Your task to perform on an android device: Check the weather Image 0: 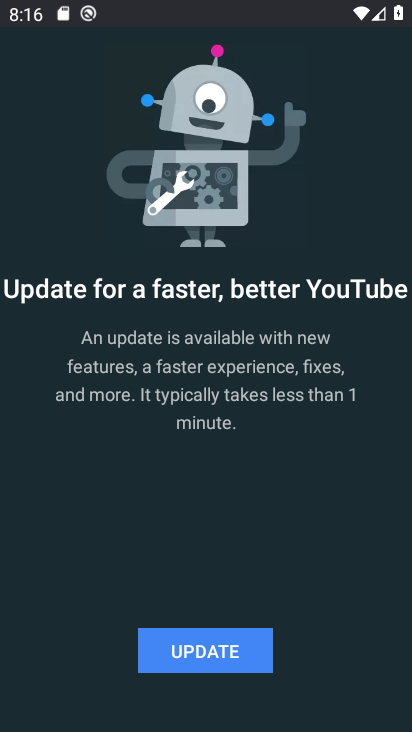
Step 0: press home button
Your task to perform on an android device: Check the weather Image 1: 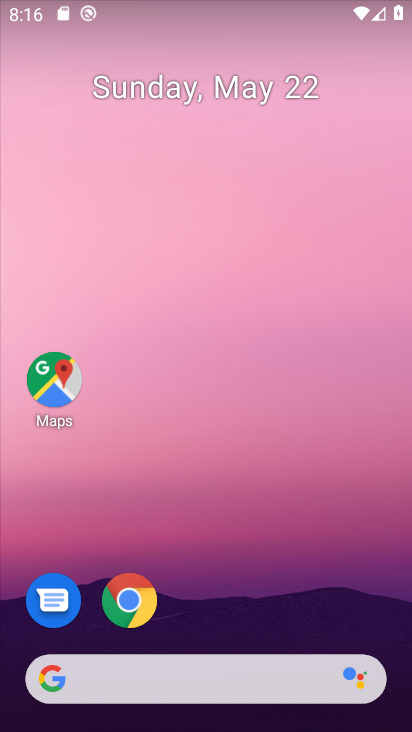
Step 1: drag from (231, 643) to (254, 263)
Your task to perform on an android device: Check the weather Image 2: 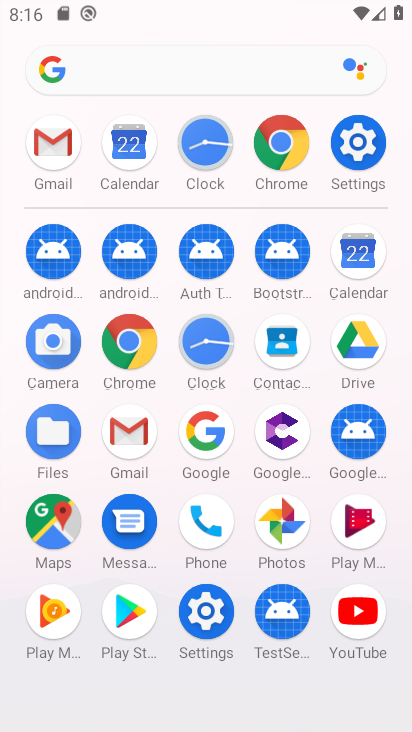
Step 2: click (203, 424)
Your task to perform on an android device: Check the weather Image 3: 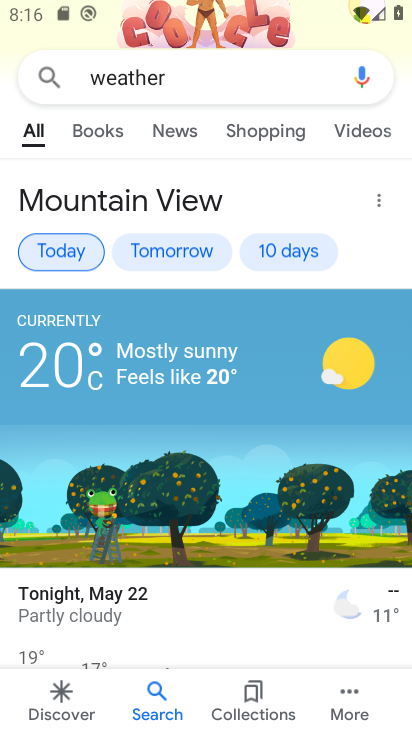
Step 3: task complete